Your task to perform on an android device: open app "YouTube Kids" Image 0: 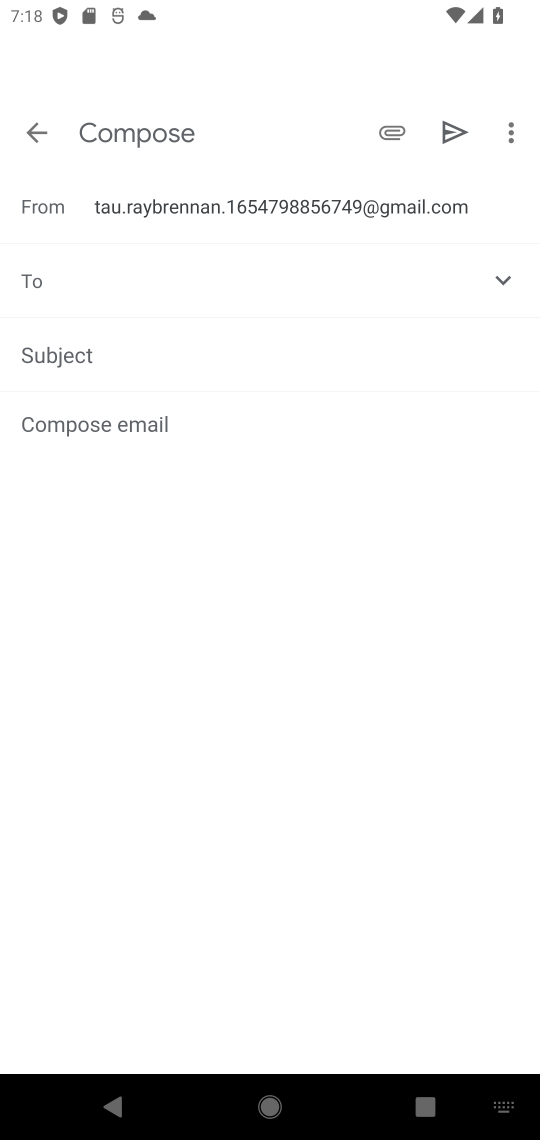
Step 0: press home button
Your task to perform on an android device: open app "YouTube Kids" Image 1: 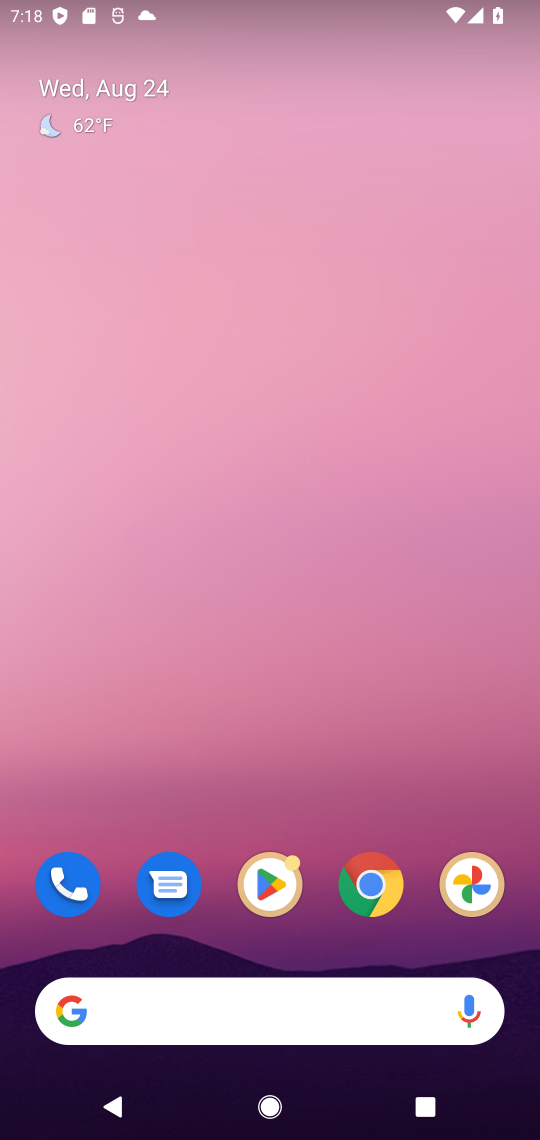
Step 1: click (302, 906)
Your task to perform on an android device: open app "YouTube Kids" Image 2: 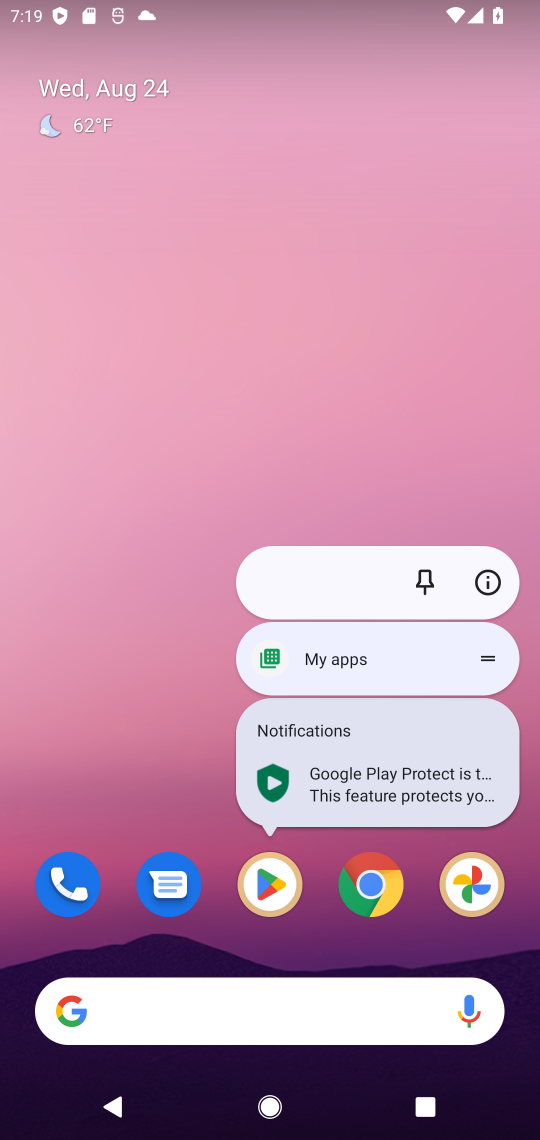
Step 2: click (286, 915)
Your task to perform on an android device: open app "YouTube Kids" Image 3: 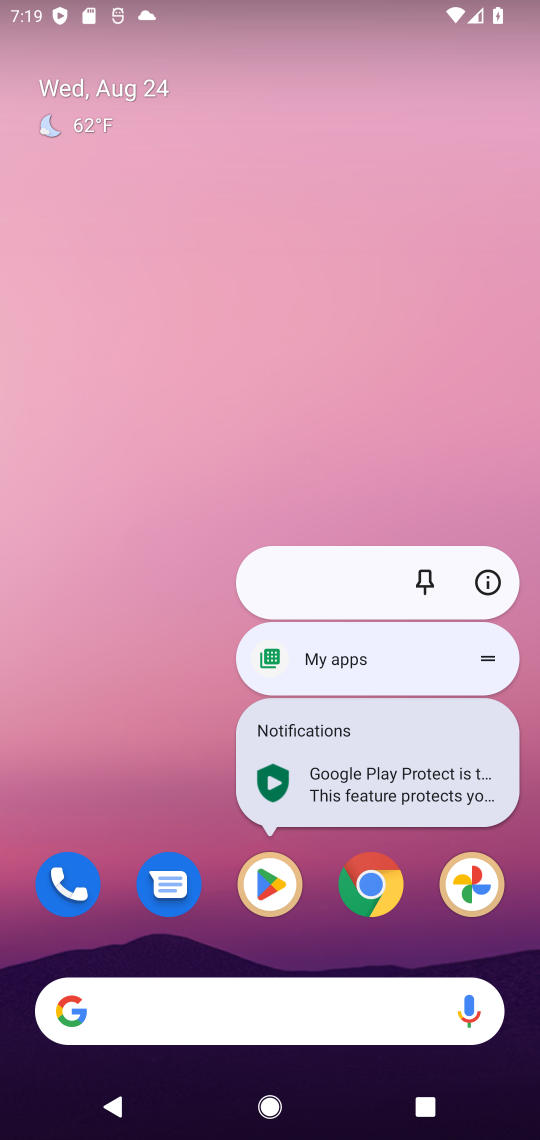
Step 3: click (288, 883)
Your task to perform on an android device: open app "YouTube Kids" Image 4: 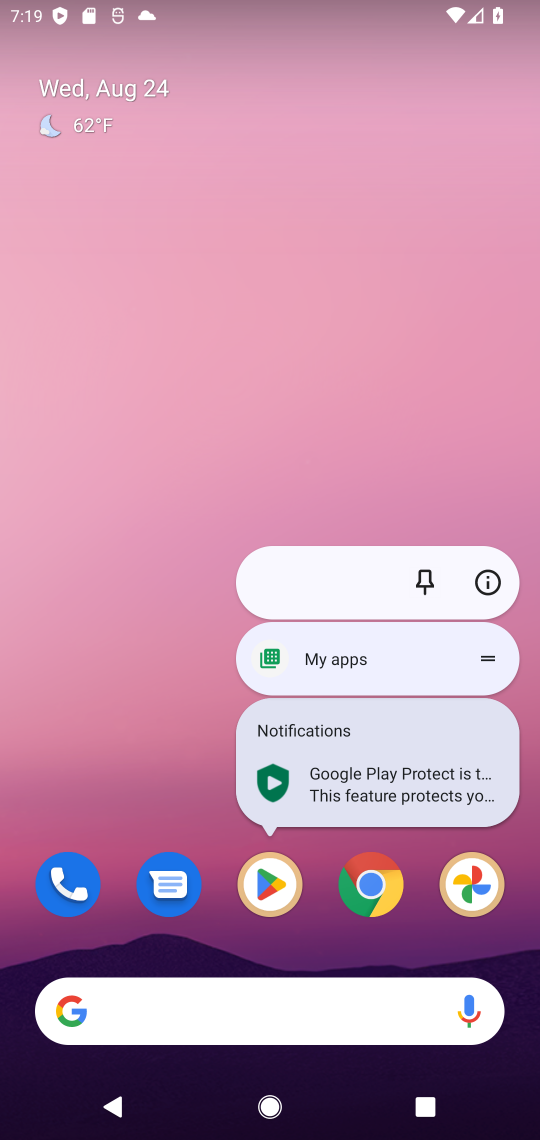
Step 4: click (287, 899)
Your task to perform on an android device: open app "YouTube Kids" Image 5: 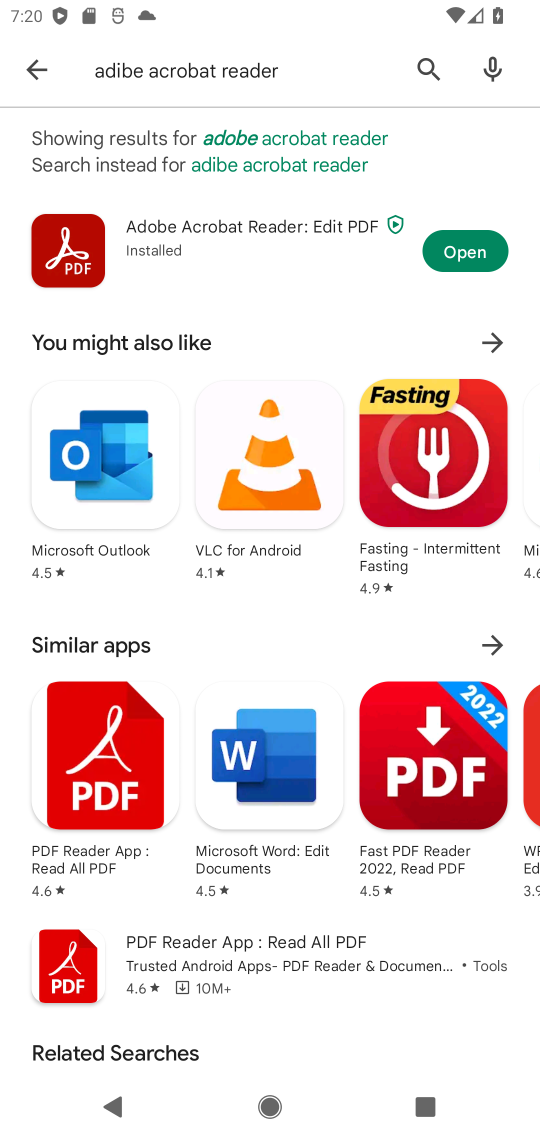
Step 5: click (419, 69)
Your task to perform on an android device: open app "YouTube Kids" Image 6: 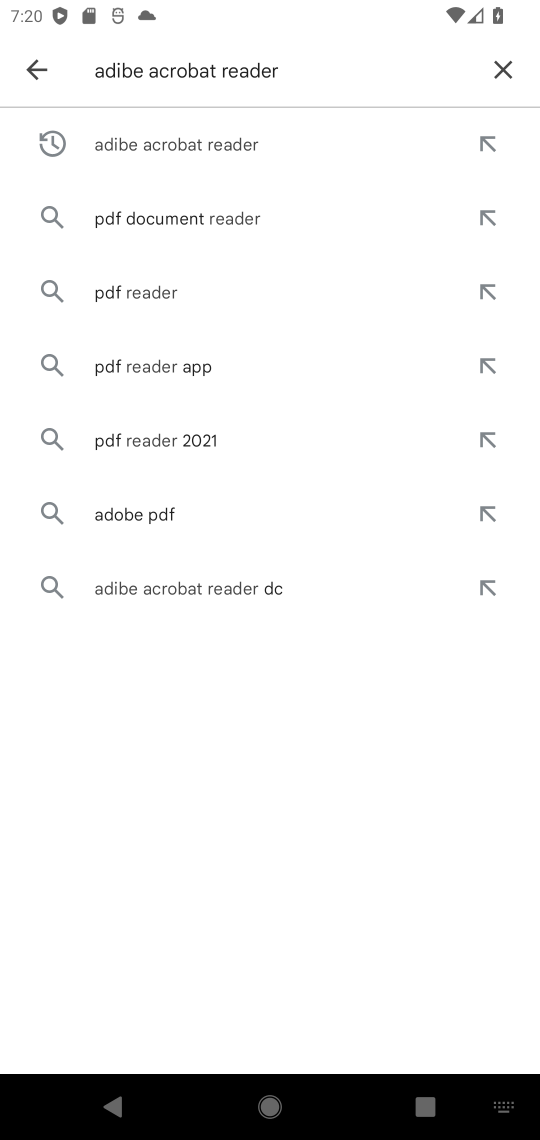
Step 6: click (503, 67)
Your task to perform on an android device: open app "YouTube Kids" Image 7: 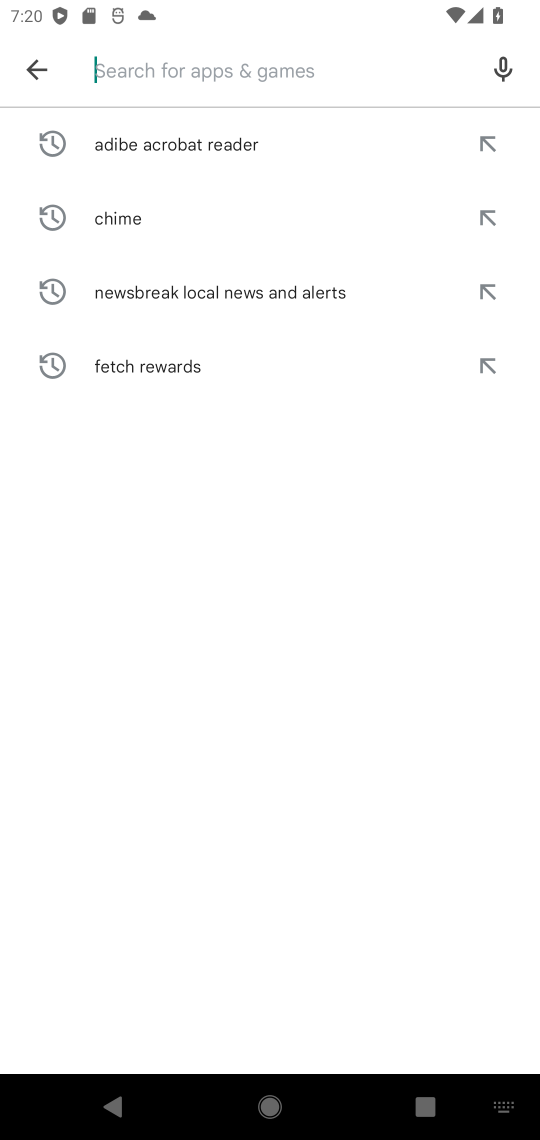
Step 7: type "youtube kids"
Your task to perform on an android device: open app "YouTube Kids" Image 8: 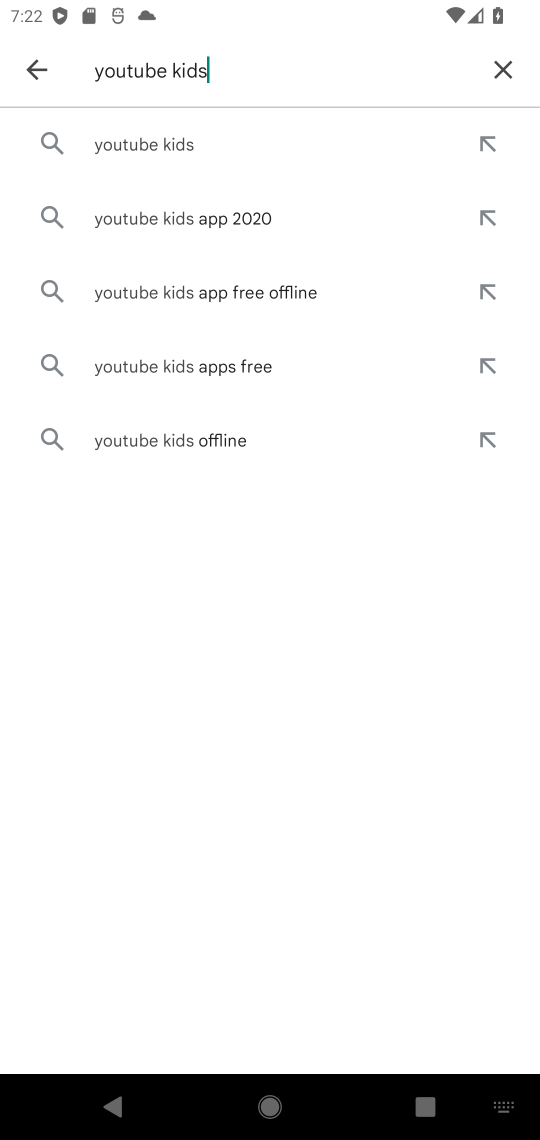
Step 8: click (222, 729)
Your task to perform on an android device: open app "YouTube Kids" Image 9: 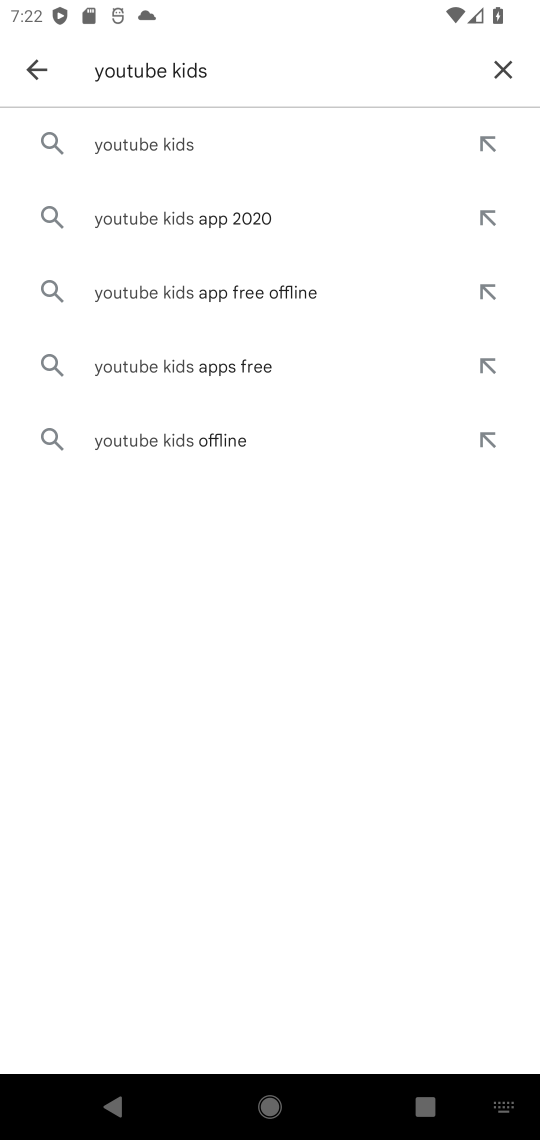
Step 9: click (144, 155)
Your task to perform on an android device: open app "YouTube Kids" Image 10: 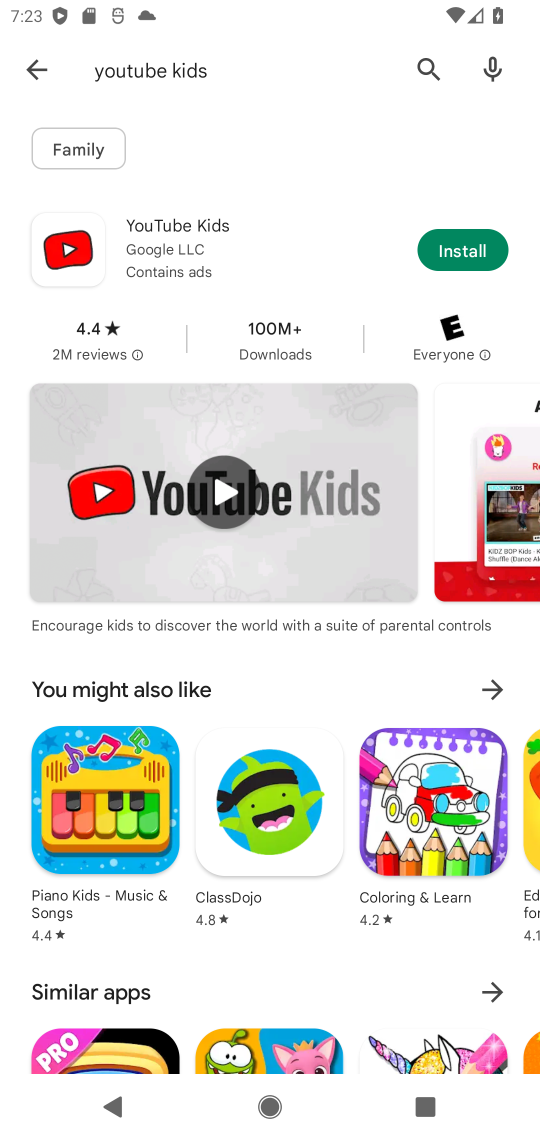
Step 10: task complete